Your task to perform on an android device: What does the iPhone 8 look like? Image 0: 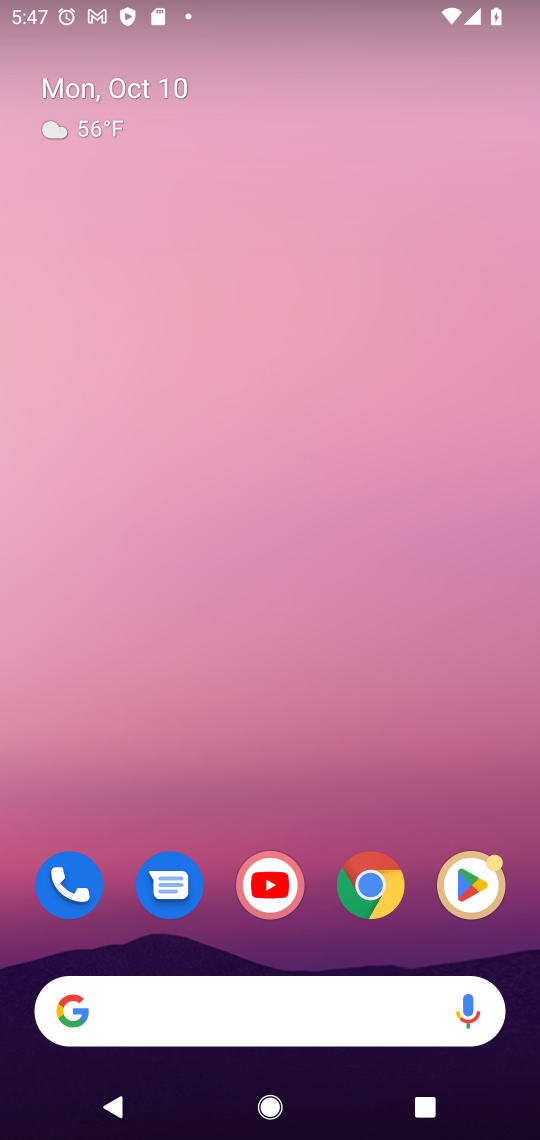
Step 0: click (253, 1008)
Your task to perform on an android device: What does the iPhone 8 look like? Image 1: 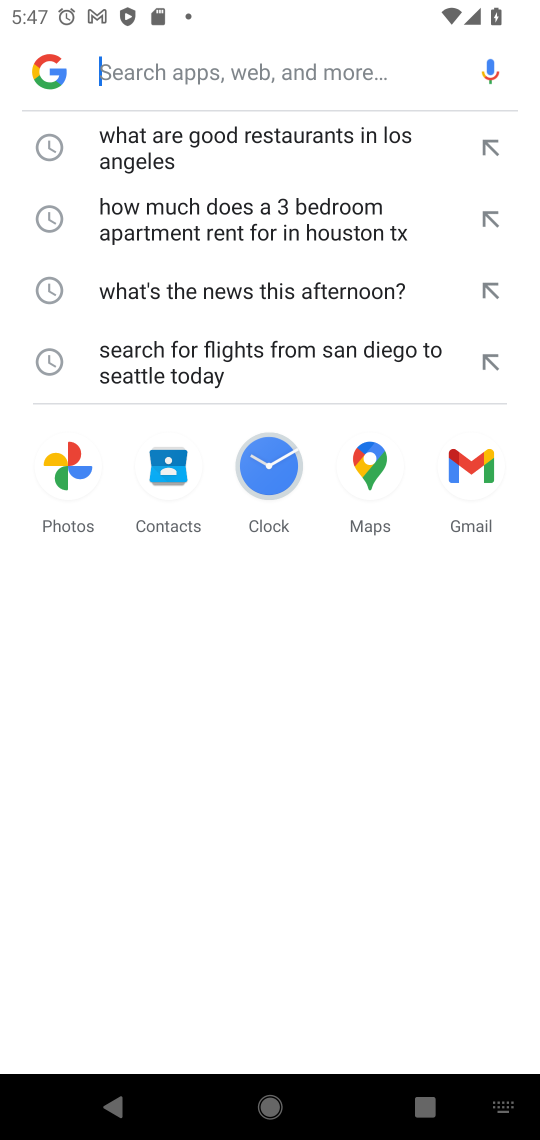
Step 1: type "What does the iPhone 8 look like?"
Your task to perform on an android device: What does the iPhone 8 look like? Image 2: 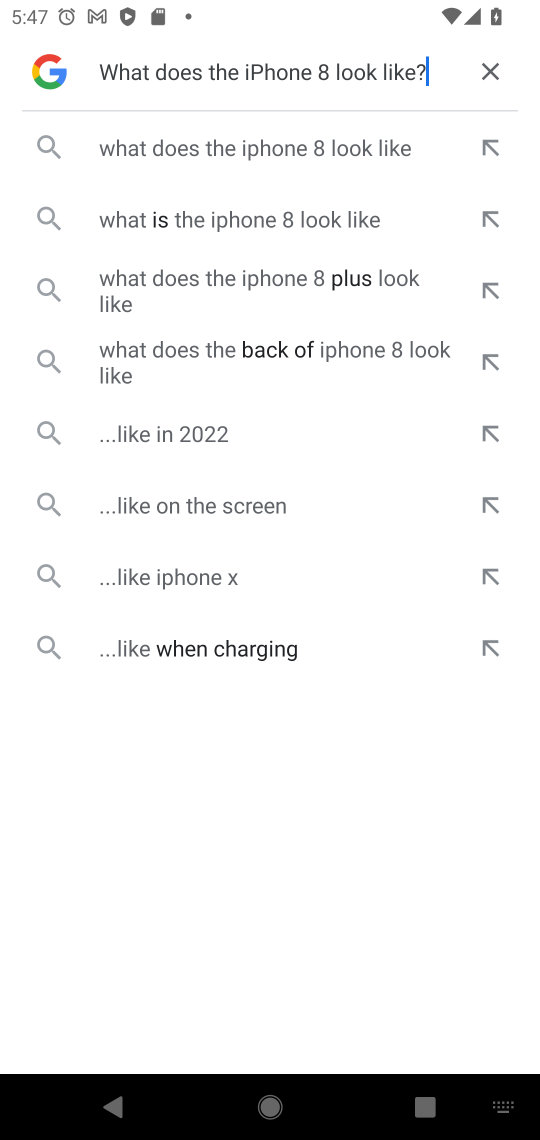
Step 2: click (259, 146)
Your task to perform on an android device: What does the iPhone 8 look like? Image 3: 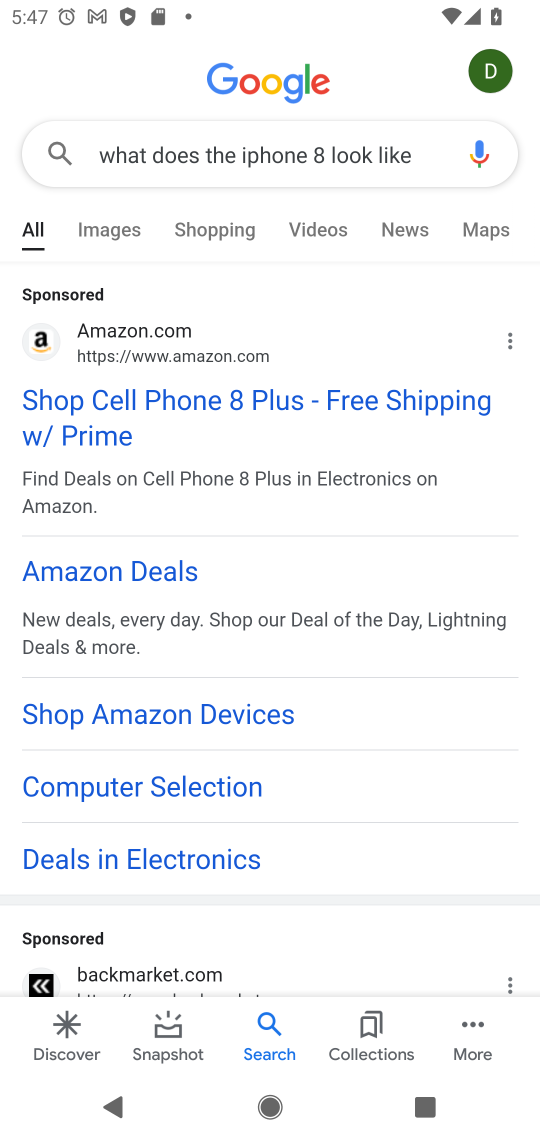
Step 3: click (203, 409)
Your task to perform on an android device: What does the iPhone 8 look like? Image 4: 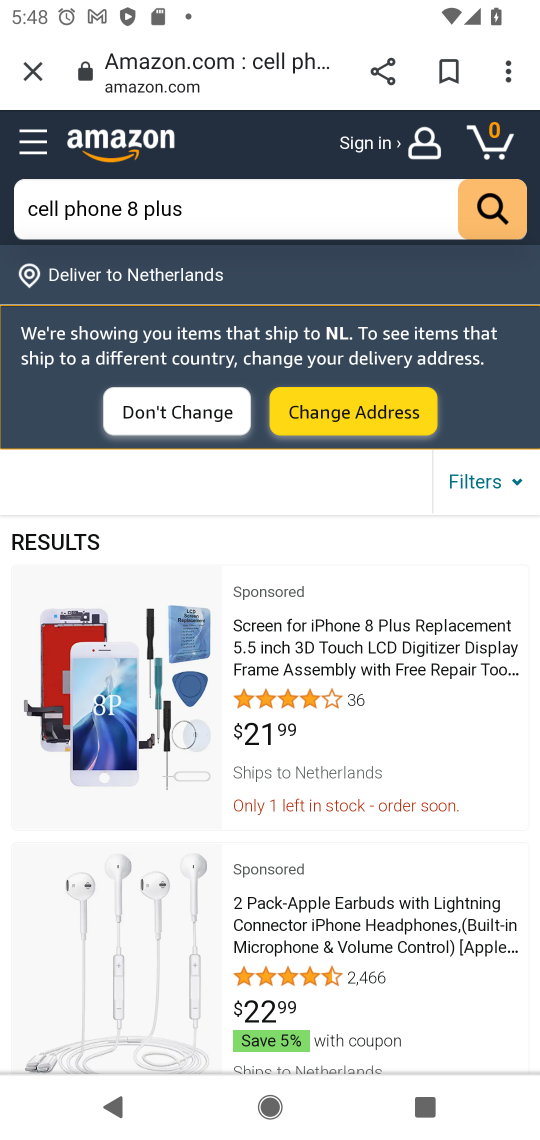
Step 4: task complete